Your task to perform on an android device: Open the calendar and show me this week's events? Image 0: 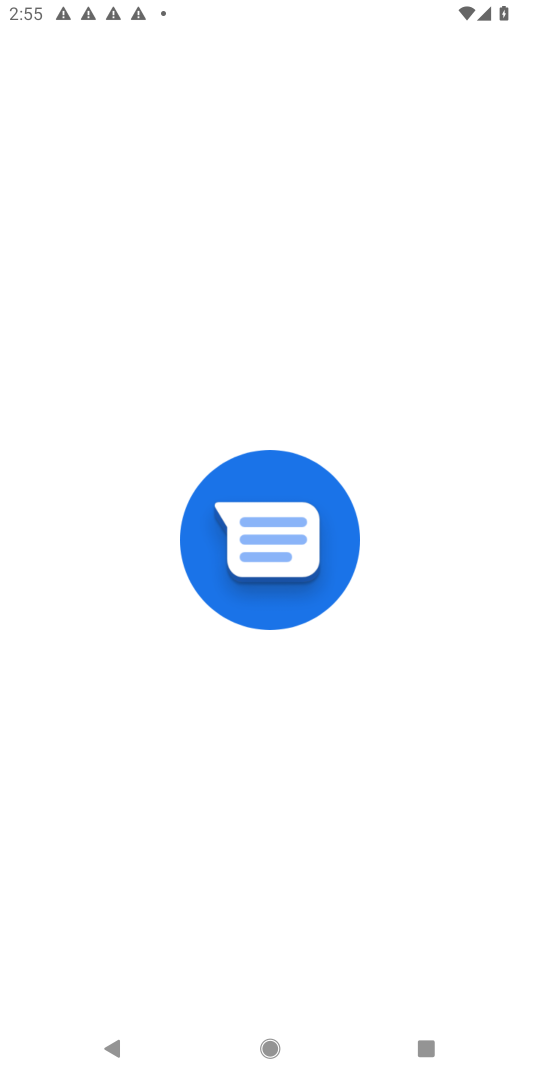
Step 0: press home button
Your task to perform on an android device: Open the calendar and show me this week's events? Image 1: 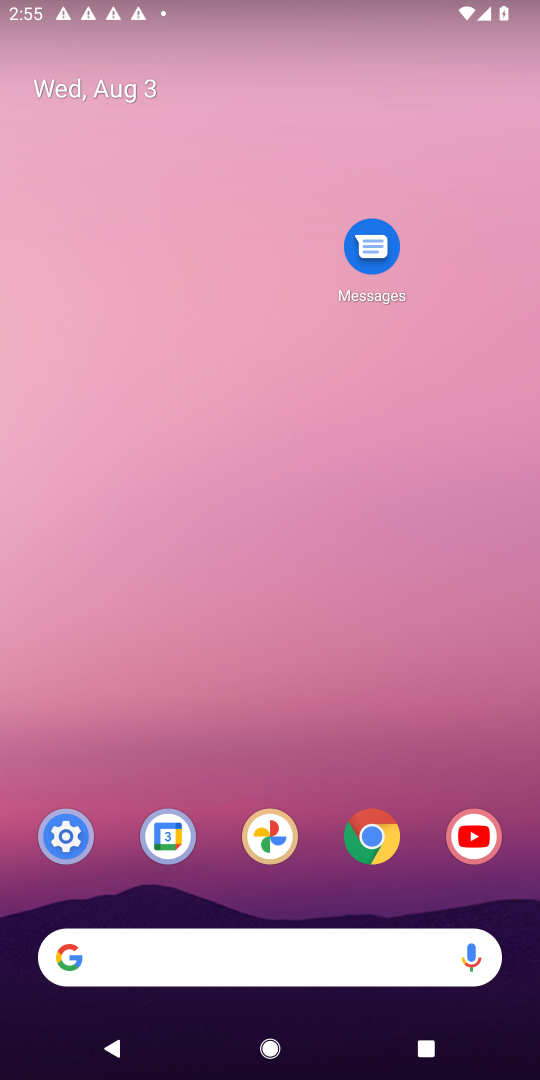
Step 1: drag from (17, 1027) to (479, 9)
Your task to perform on an android device: Open the calendar and show me this week's events? Image 2: 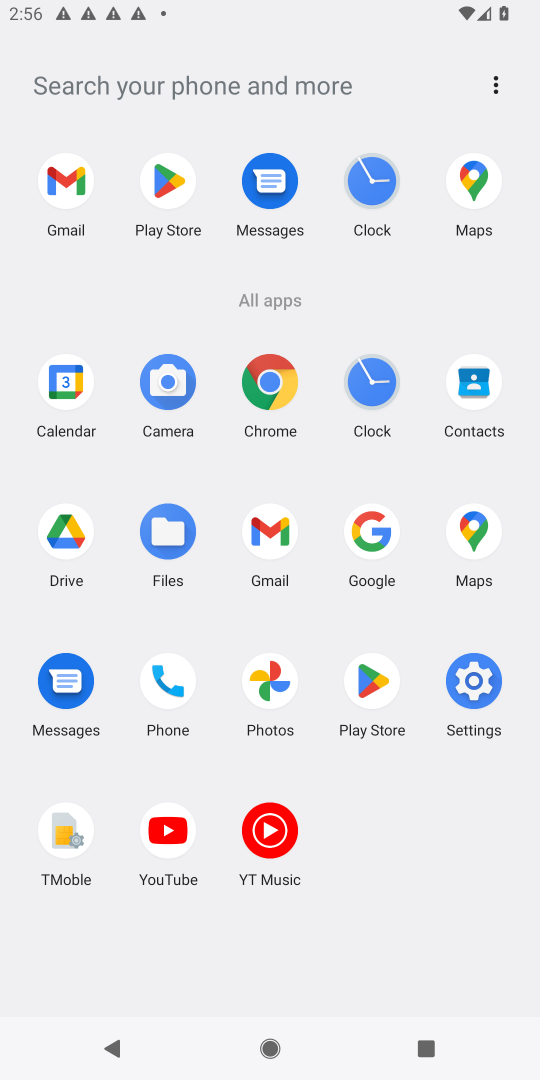
Step 2: click (53, 402)
Your task to perform on an android device: Open the calendar and show me this week's events? Image 3: 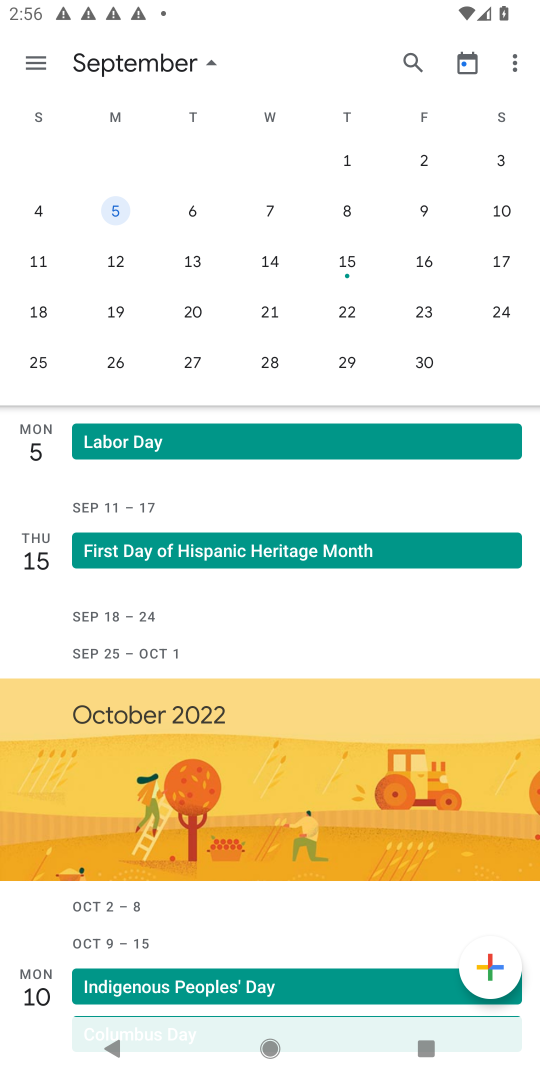
Step 3: task complete